Your task to perform on an android device: allow notifications from all sites in the chrome app Image 0: 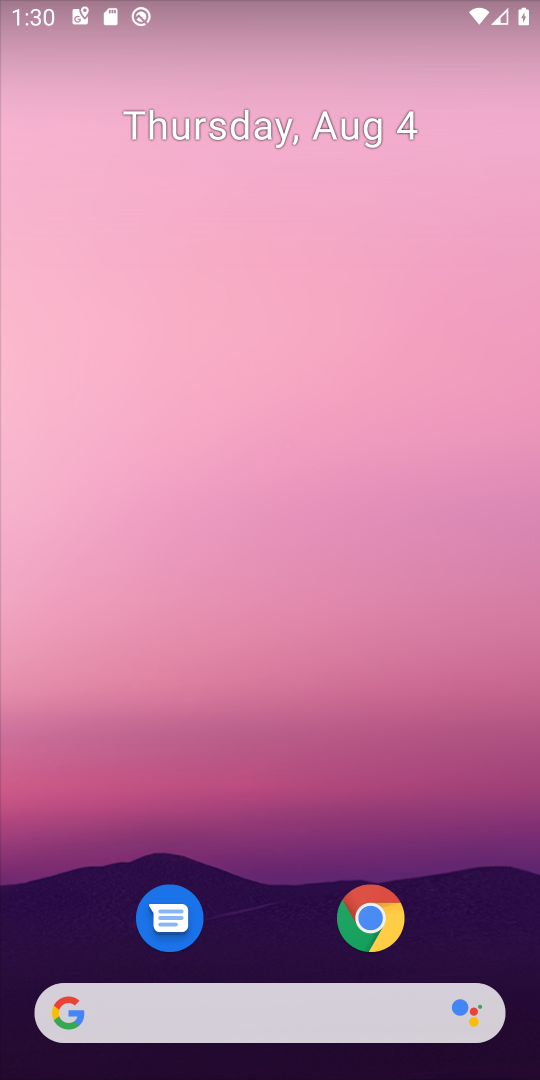
Step 0: click (387, 925)
Your task to perform on an android device: allow notifications from all sites in the chrome app Image 1: 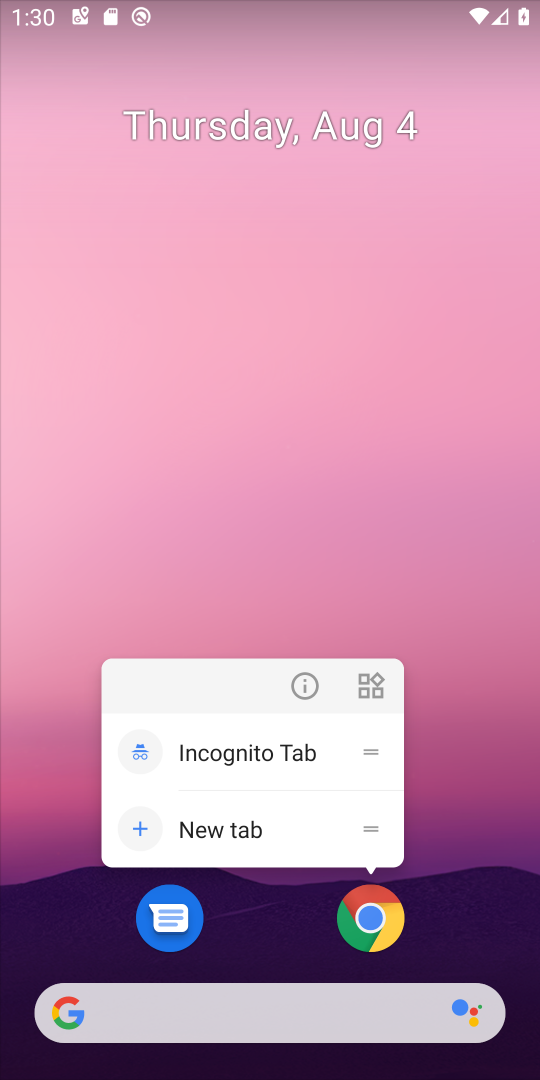
Step 1: click (388, 925)
Your task to perform on an android device: allow notifications from all sites in the chrome app Image 2: 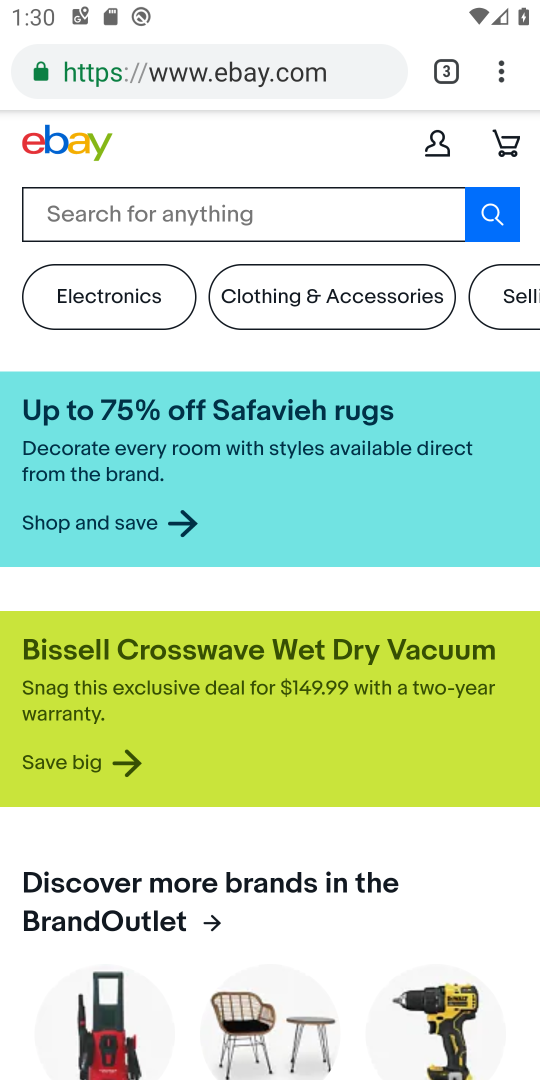
Step 2: click (512, 67)
Your task to perform on an android device: allow notifications from all sites in the chrome app Image 3: 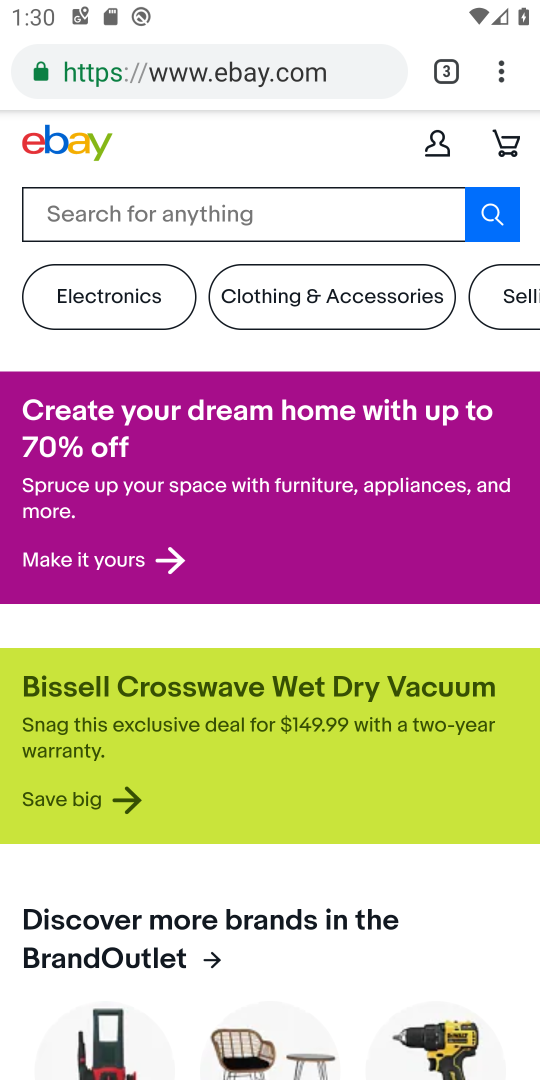
Step 3: click (504, 71)
Your task to perform on an android device: allow notifications from all sites in the chrome app Image 4: 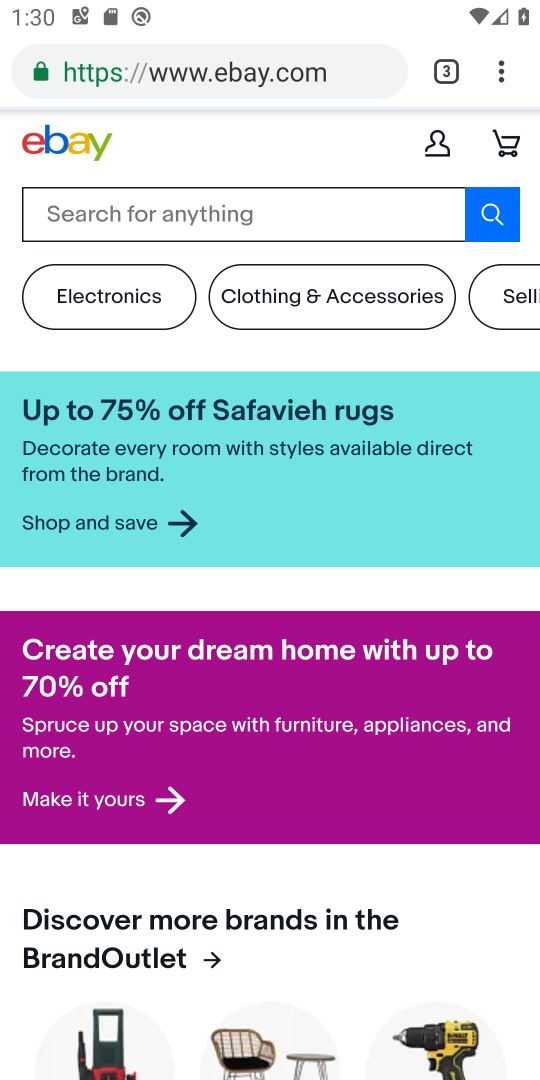
Step 4: drag from (497, 65) to (273, 861)
Your task to perform on an android device: allow notifications from all sites in the chrome app Image 5: 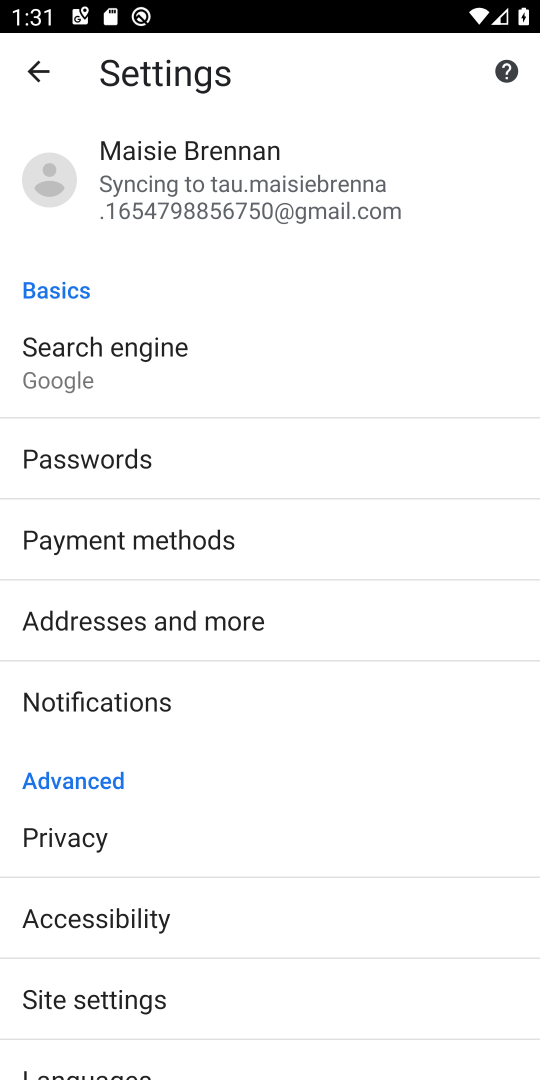
Step 5: click (142, 712)
Your task to perform on an android device: allow notifications from all sites in the chrome app Image 6: 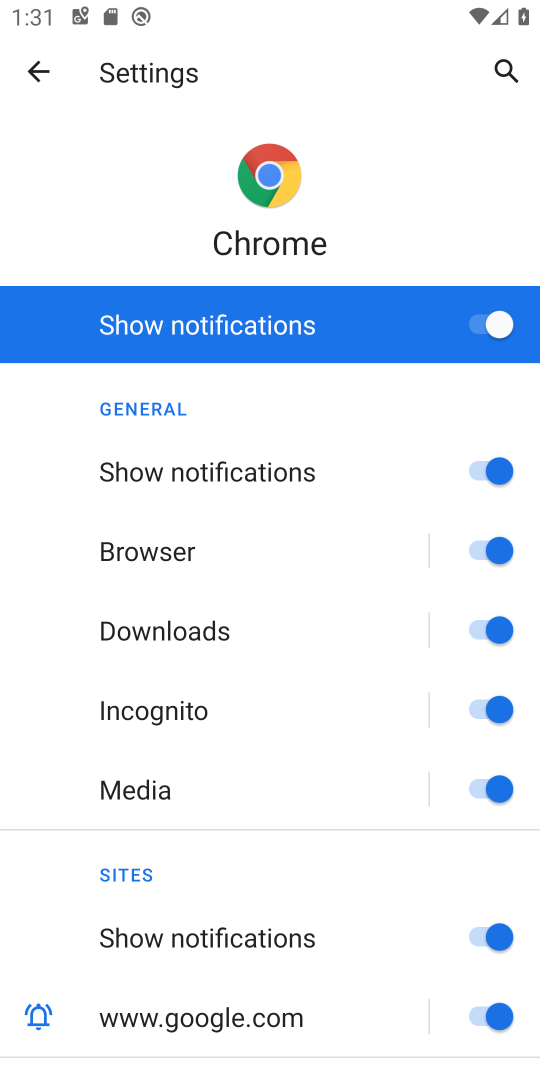
Step 6: task complete